Your task to perform on an android device: open a bookmark in the chrome app Image 0: 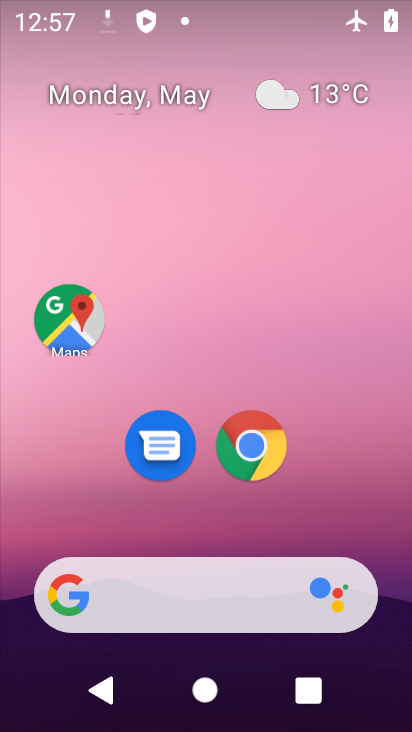
Step 0: click (266, 469)
Your task to perform on an android device: open a bookmark in the chrome app Image 1: 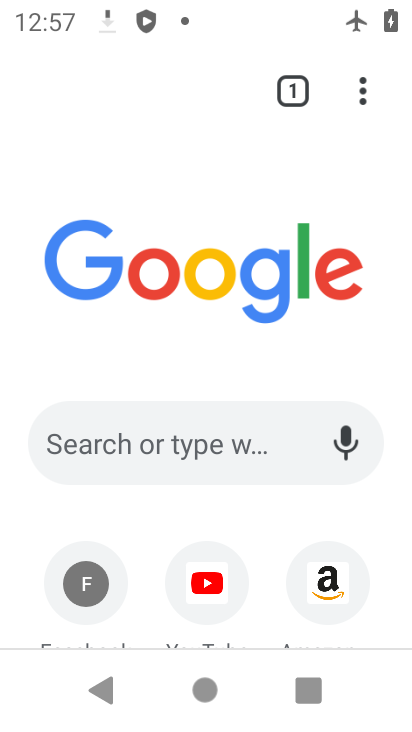
Step 1: click (363, 89)
Your task to perform on an android device: open a bookmark in the chrome app Image 2: 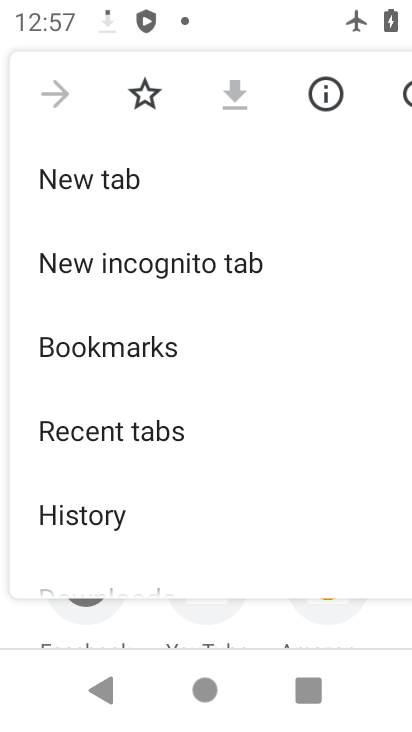
Step 2: click (149, 336)
Your task to perform on an android device: open a bookmark in the chrome app Image 3: 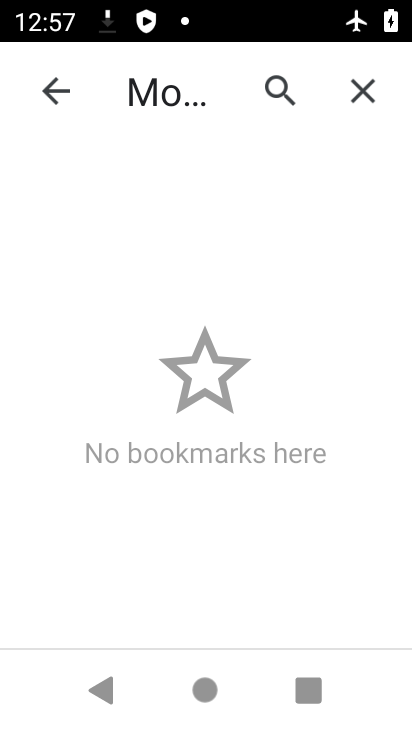
Step 3: task complete